Your task to perform on an android device: Is it going to rain today? Image 0: 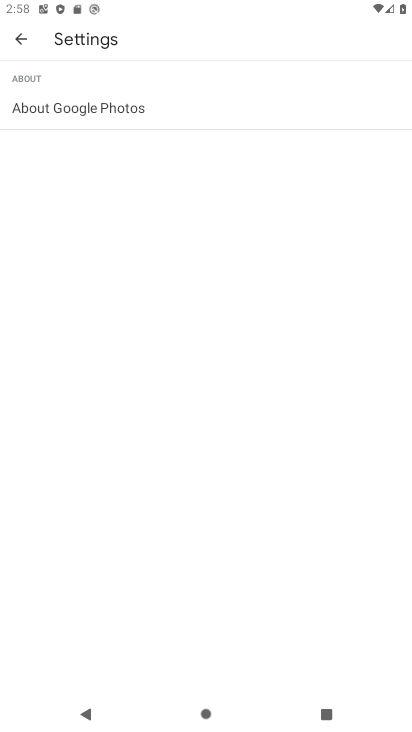
Step 0: press home button
Your task to perform on an android device: Is it going to rain today? Image 1: 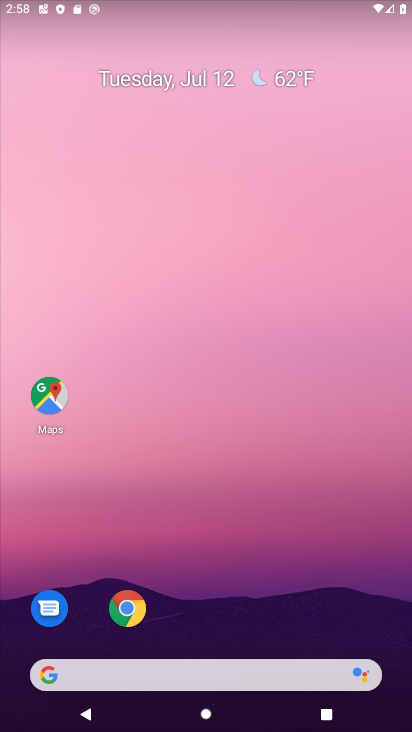
Step 1: click (204, 673)
Your task to perform on an android device: Is it going to rain today? Image 2: 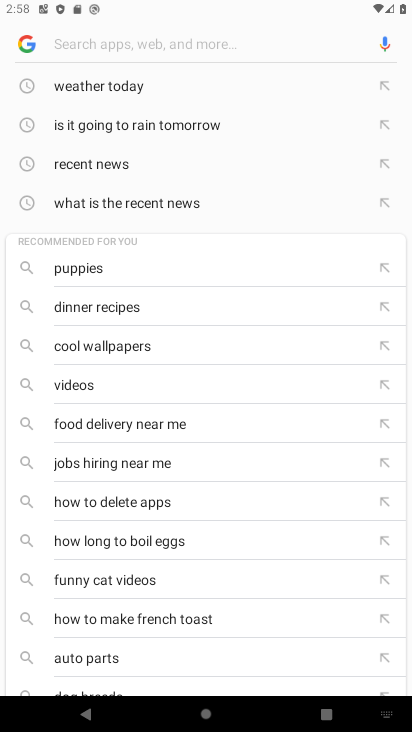
Step 2: type "Is it going to rain today"
Your task to perform on an android device: Is it going to rain today? Image 3: 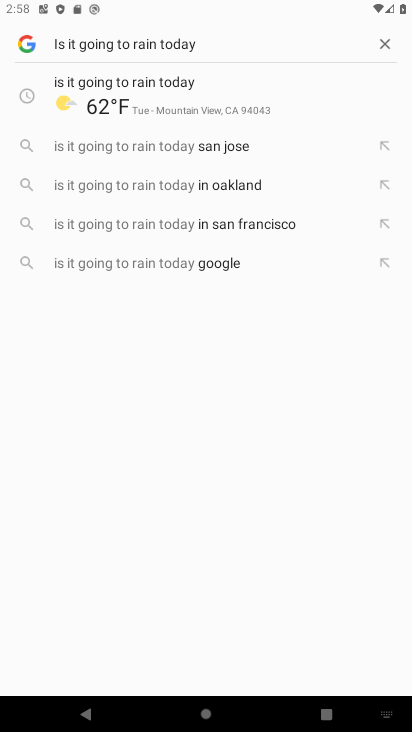
Step 3: click (167, 89)
Your task to perform on an android device: Is it going to rain today? Image 4: 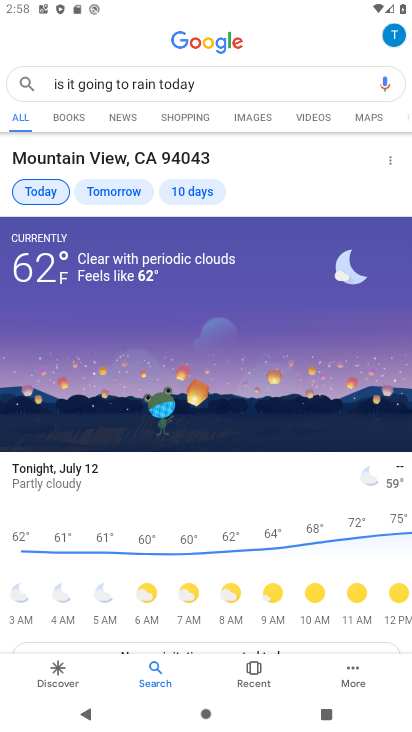
Step 4: task complete